Your task to perform on an android device: Open Chrome and go to settings Image 0: 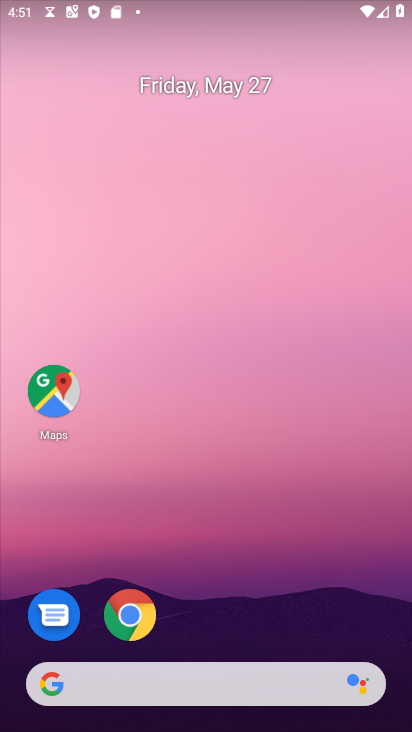
Step 0: click (134, 621)
Your task to perform on an android device: Open Chrome and go to settings Image 1: 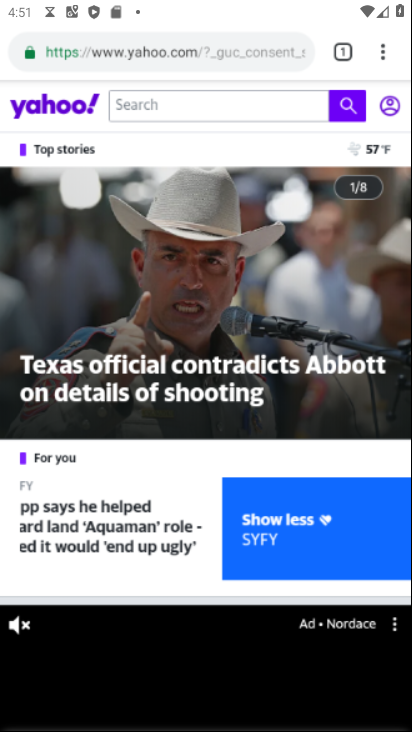
Step 1: click (379, 50)
Your task to perform on an android device: Open Chrome and go to settings Image 2: 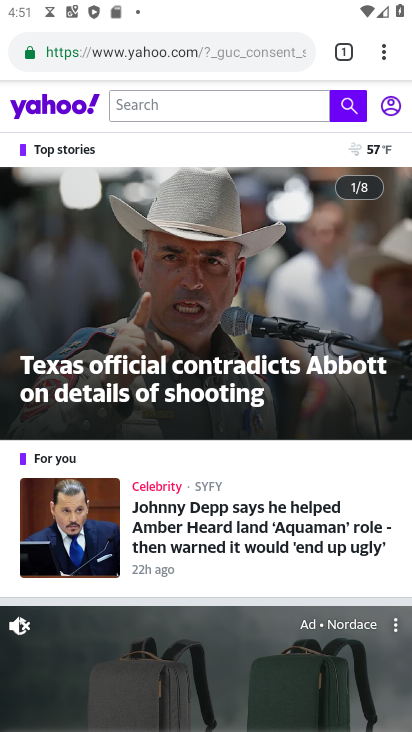
Step 2: click (388, 47)
Your task to perform on an android device: Open Chrome and go to settings Image 3: 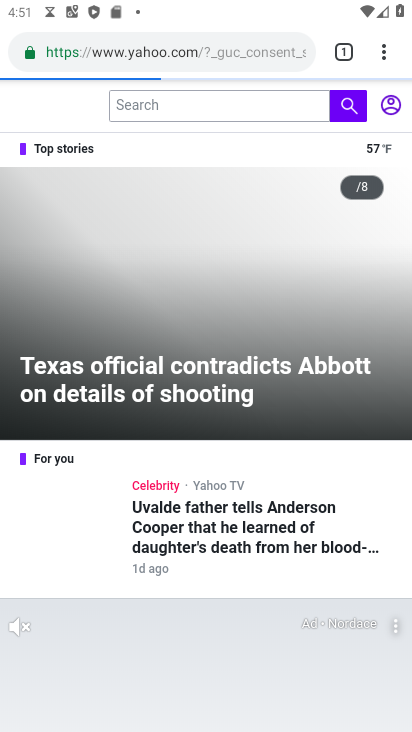
Step 3: click (385, 58)
Your task to perform on an android device: Open Chrome and go to settings Image 4: 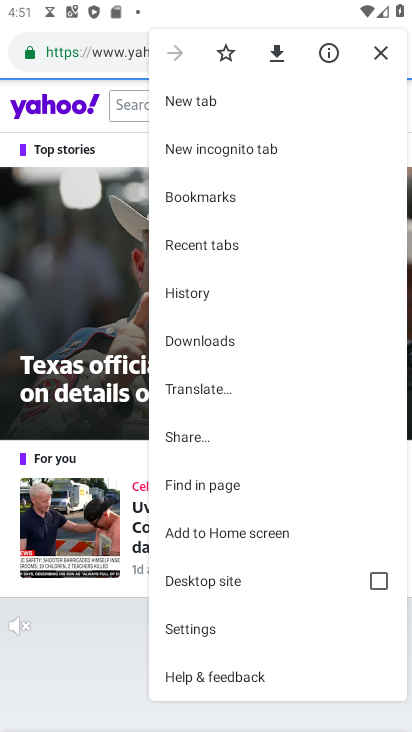
Step 4: click (223, 630)
Your task to perform on an android device: Open Chrome and go to settings Image 5: 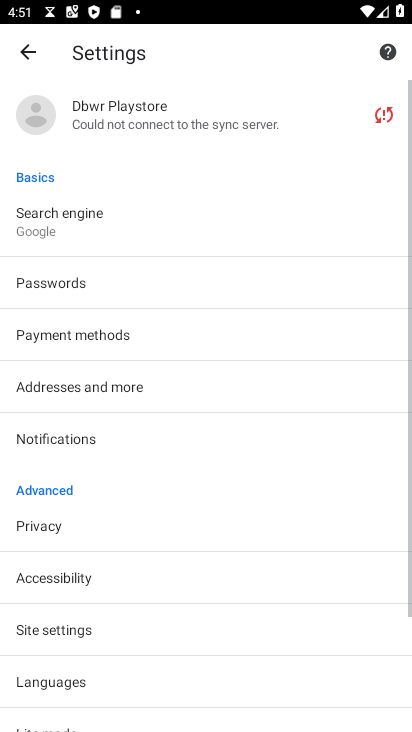
Step 5: task complete